Your task to perform on an android device: check out phone information Image 0: 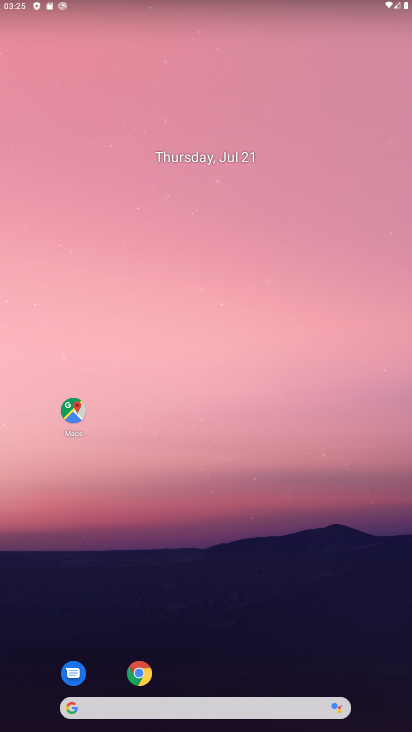
Step 0: drag from (229, 619) to (186, 0)
Your task to perform on an android device: check out phone information Image 1: 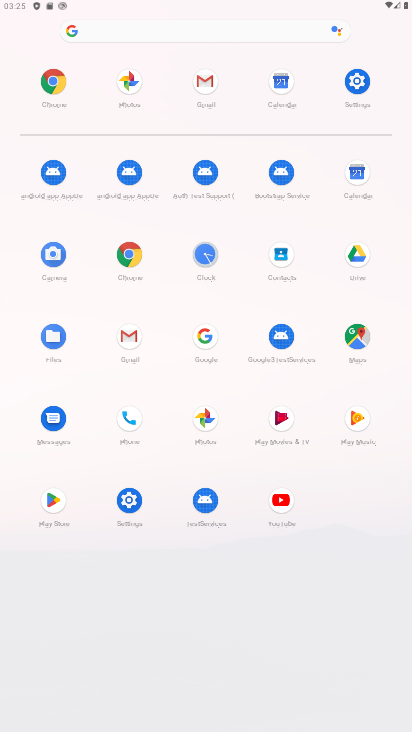
Step 1: click (125, 416)
Your task to perform on an android device: check out phone information Image 2: 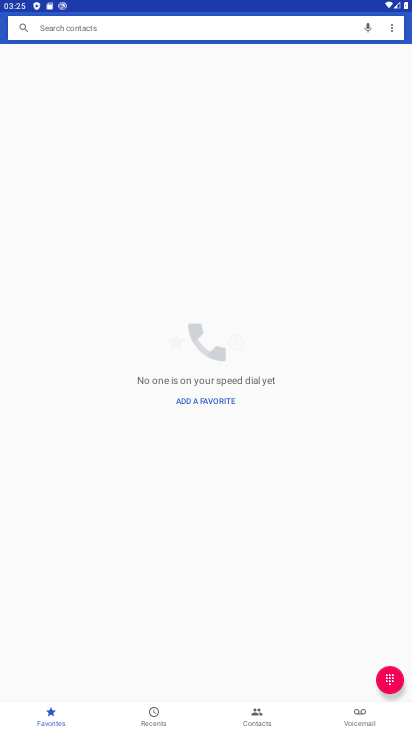
Step 2: press home button
Your task to perform on an android device: check out phone information Image 3: 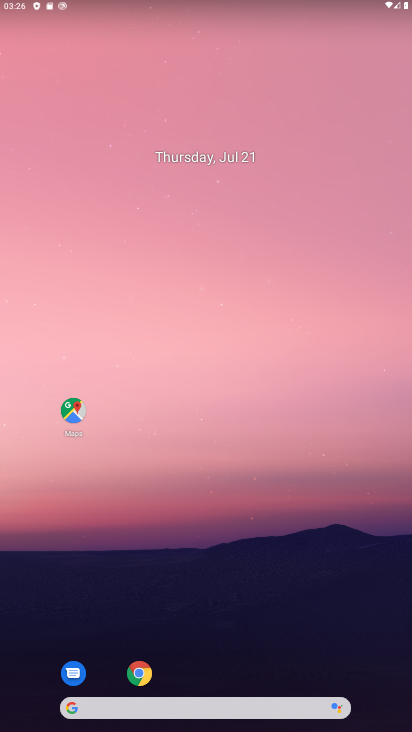
Step 3: drag from (279, 627) to (301, 95)
Your task to perform on an android device: check out phone information Image 4: 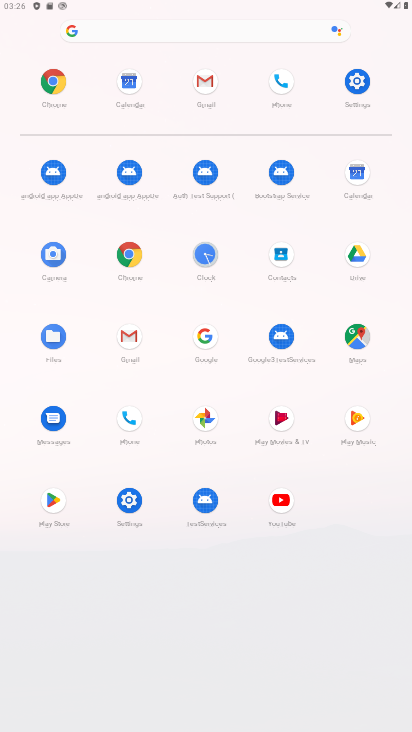
Step 4: click (121, 408)
Your task to perform on an android device: check out phone information Image 5: 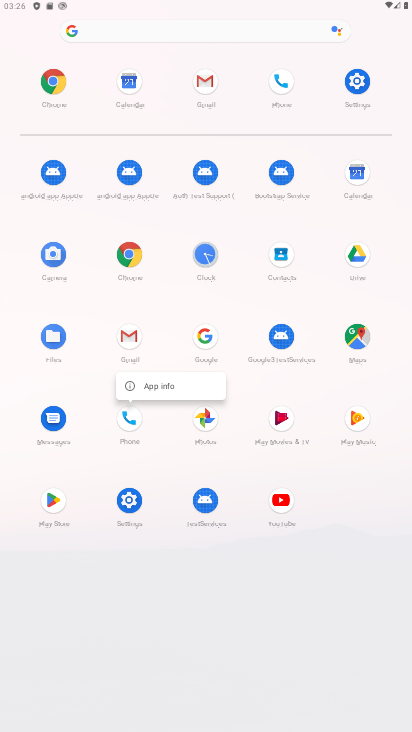
Step 5: click (159, 377)
Your task to perform on an android device: check out phone information Image 6: 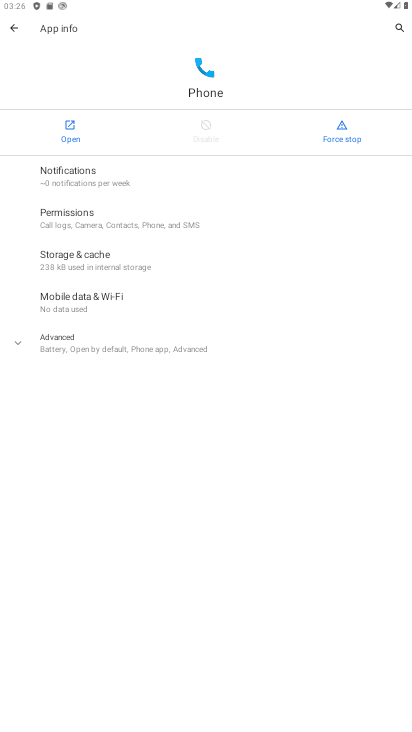
Step 6: click (127, 341)
Your task to perform on an android device: check out phone information Image 7: 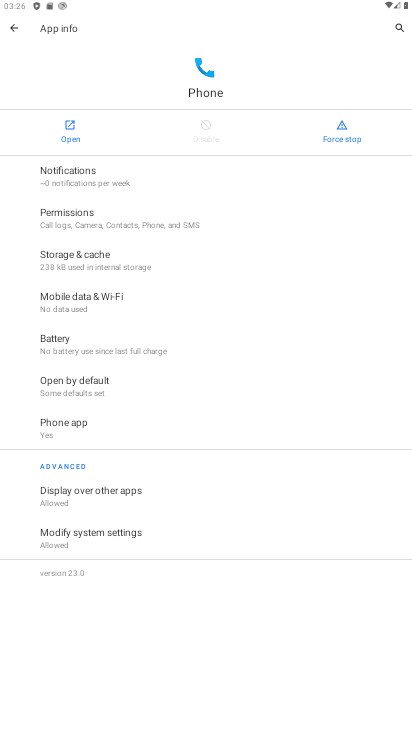
Step 7: task complete